Your task to perform on an android device: turn on the 24-hour format for clock Image 0: 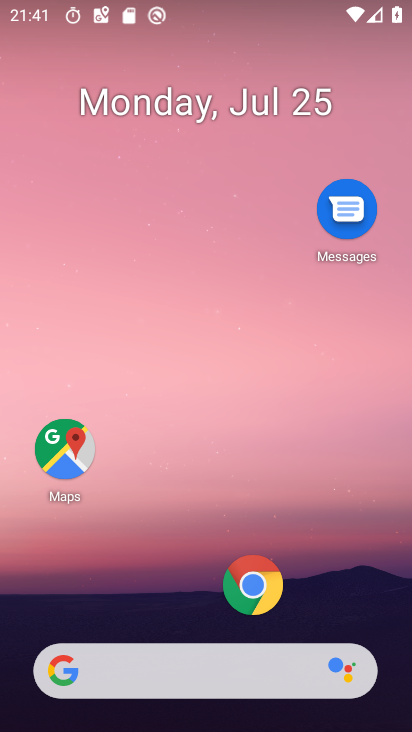
Step 0: drag from (200, 677) to (327, 51)
Your task to perform on an android device: turn on the 24-hour format for clock Image 1: 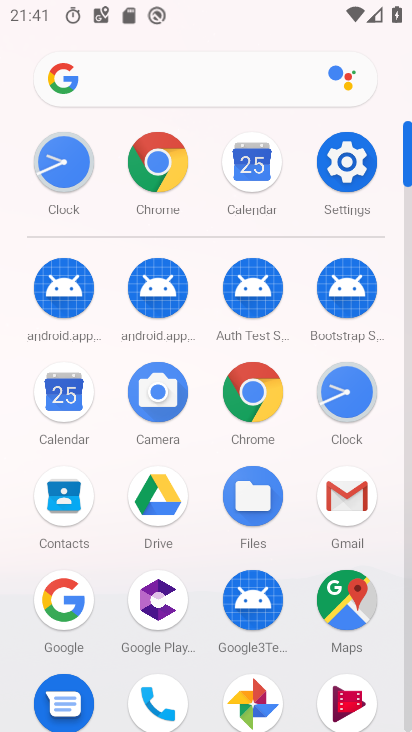
Step 1: click (354, 395)
Your task to perform on an android device: turn on the 24-hour format for clock Image 2: 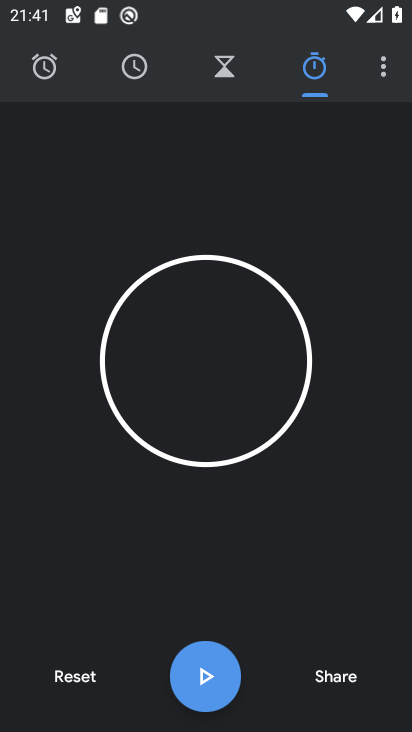
Step 2: click (380, 74)
Your task to perform on an android device: turn on the 24-hour format for clock Image 3: 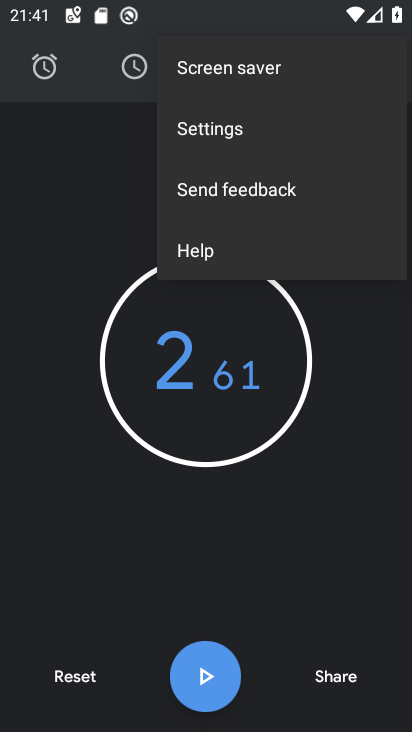
Step 3: click (202, 120)
Your task to perform on an android device: turn on the 24-hour format for clock Image 4: 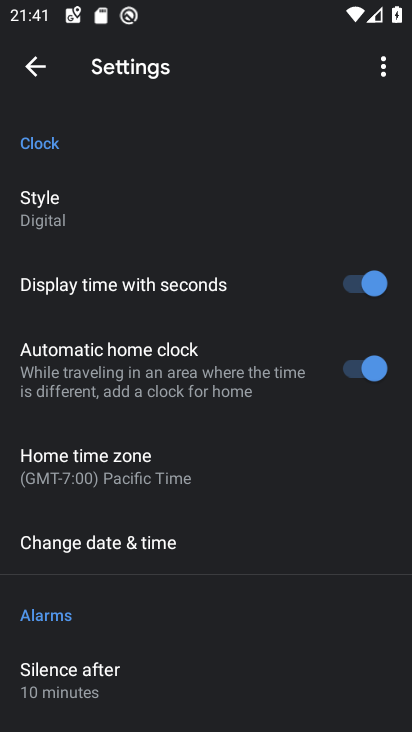
Step 4: click (135, 552)
Your task to perform on an android device: turn on the 24-hour format for clock Image 5: 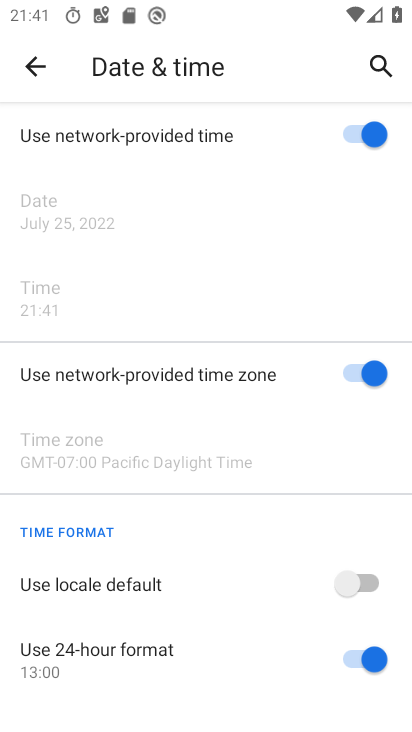
Step 5: task complete